Your task to perform on an android device: Open Google Chrome and open the bookmarks view Image 0: 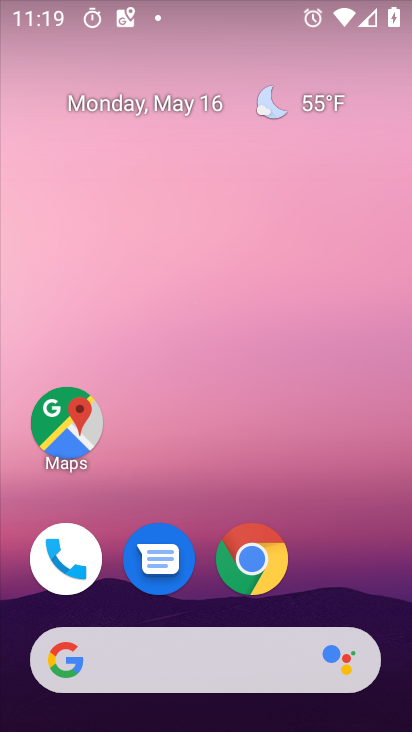
Step 0: click (267, 562)
Your task to perform on an android device: Open Google Chrome and open the bookmarks view Image 1: 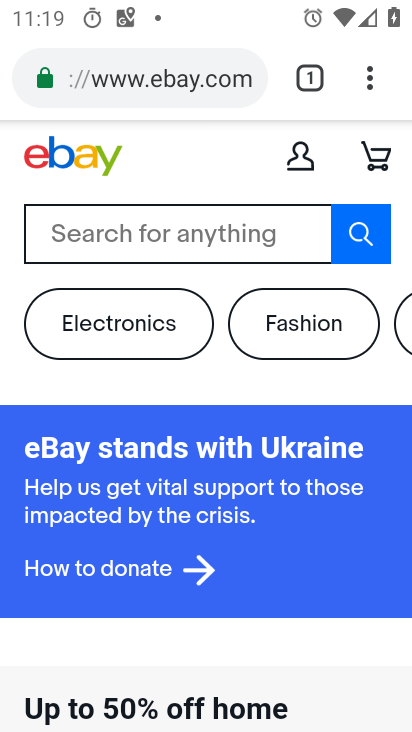
Step 1: task complete